Your task to perform on an android device: allow cookies in the chrome app Image 0: 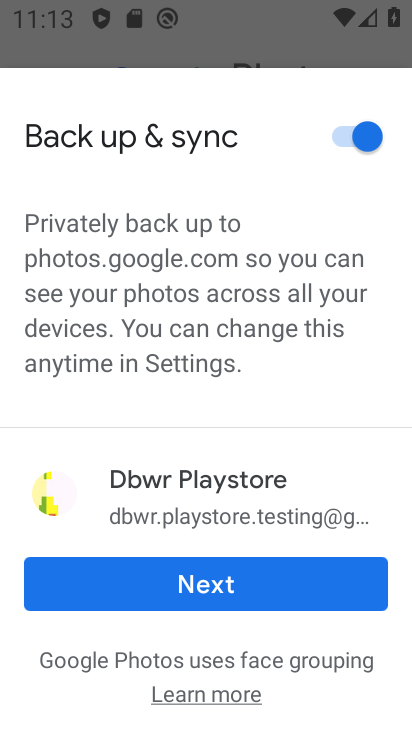
Step 0: press home button
Your task to perform on an android device: allow cookies in the chrome app Image 1: 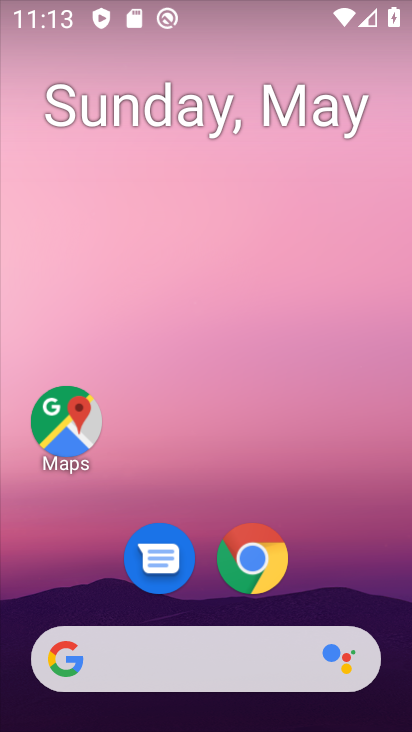
Step 1: drag from (387, 586) to (377, 154)
Your task to perform on an android device: allow cookies in the chrome app Image 2: 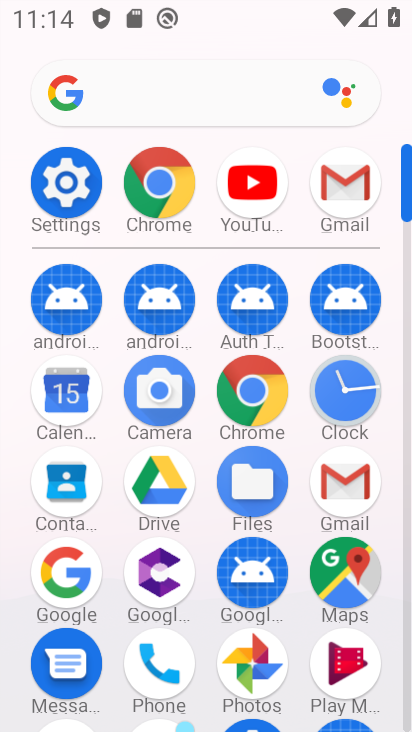
Step 2: click (258, 396)
Your task to perform on an android device: allow cookies in the chrome app Image 3: 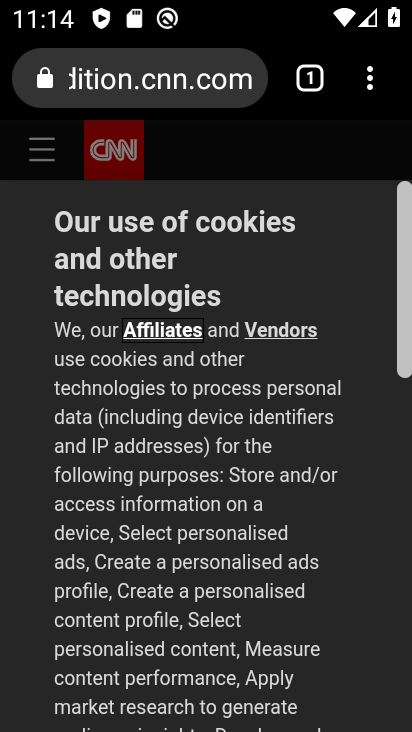
Step 3: click (372, 82)
Your task to perform on an android device: allow cookies in the chrome app Image 4: 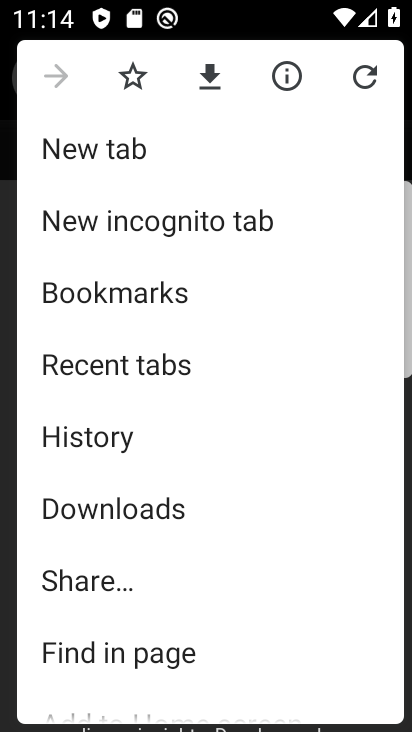
Step 4: drag from (309, 612) to (299, 420)
Your task to perform on an android device: allow cookies in the chrome app Image 5: 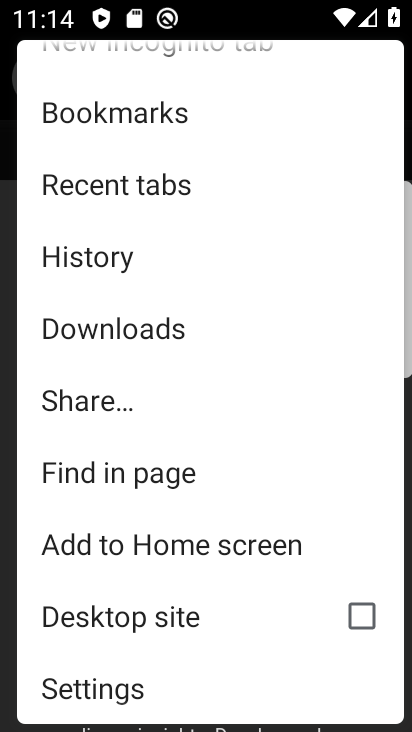
Step 5: drag from (256, 602) to (258, 501)
Your task to perform on an android device: allow cookies in the chrome app Image 6: 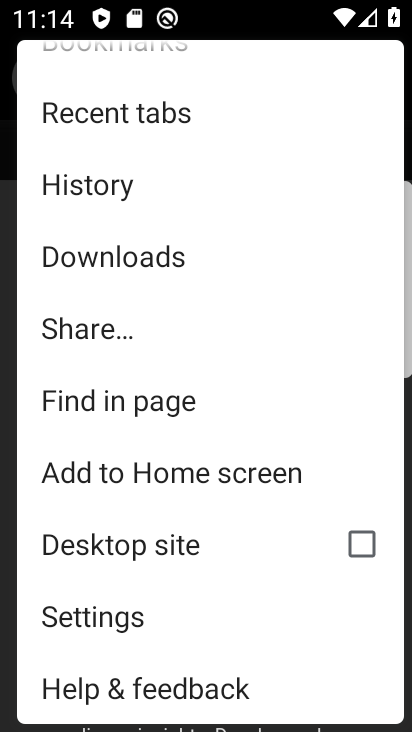
Step 6: click (125, 627)
Your task to perform on an android device: allow cookies in the chrome app Image 7: 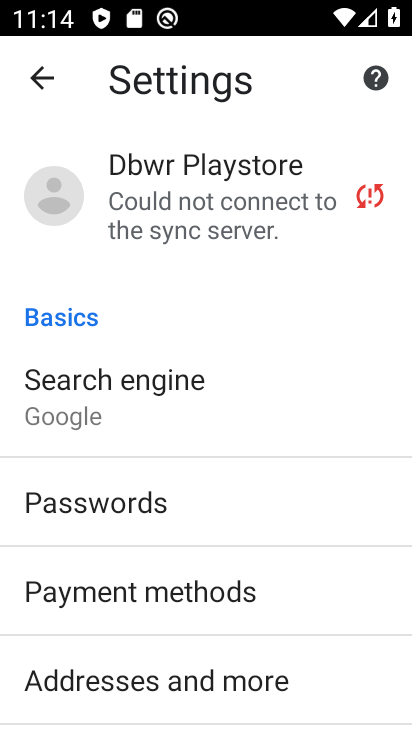
Step 7: drag from (329, 659) to (345, 497)
Your task to perform on an android device: allow cookies in the chrome app Image 8: 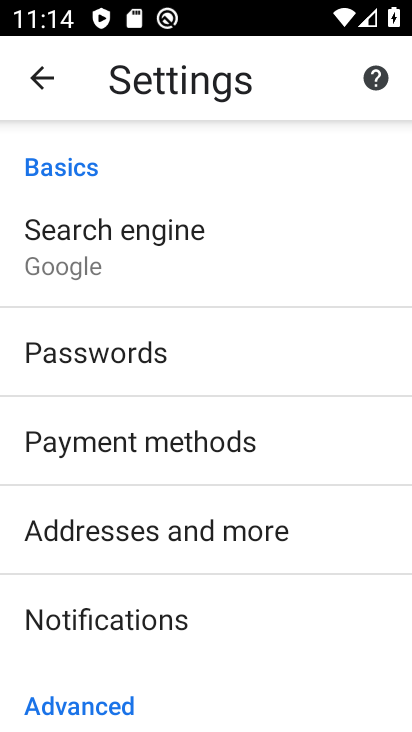
Step 8: drag from (336, 682) to (351, 530)
Your task to perform on an android device: allow cookies in the chrome app Image 9: 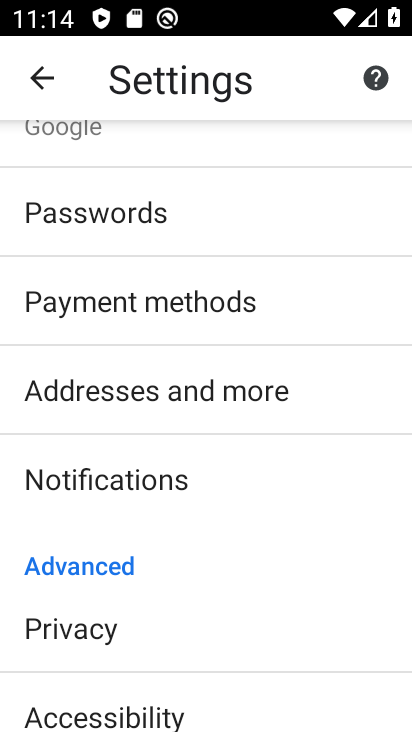
Step 9: drag from (315, 682) to (312, 525)
Your task to perform on an android device: allow cookies in the chrome app Image 10: 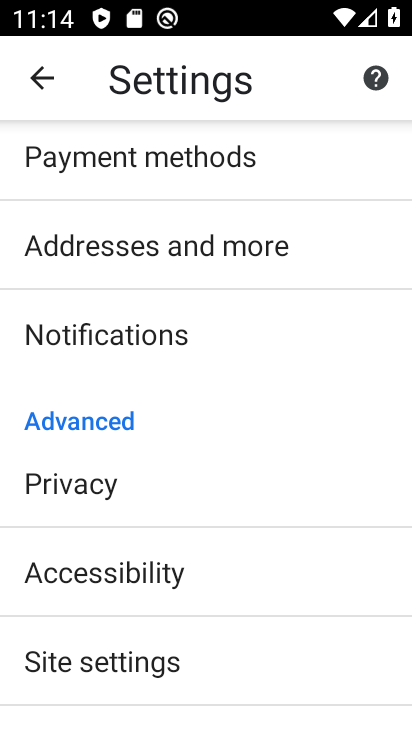
Step 10: drag from (305, 680) to (304, 525)
Your task to perform on an android device: allow cookies in the chrome app Image 11: 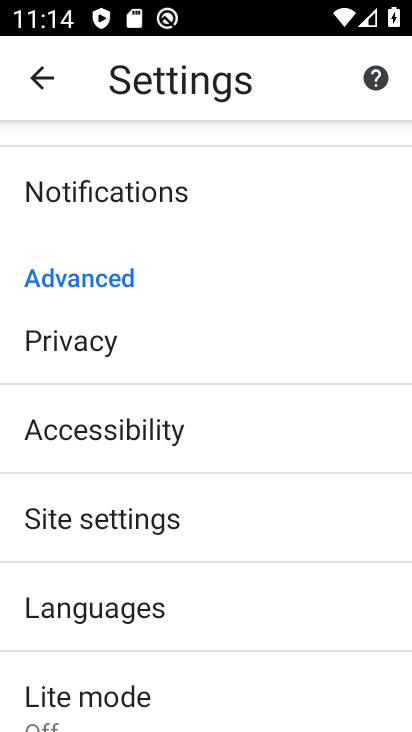
Step 11: drag from (306, 716) to (306, 553)
Your task to perform on an android device: allow cookies in the chrome app Image 12: 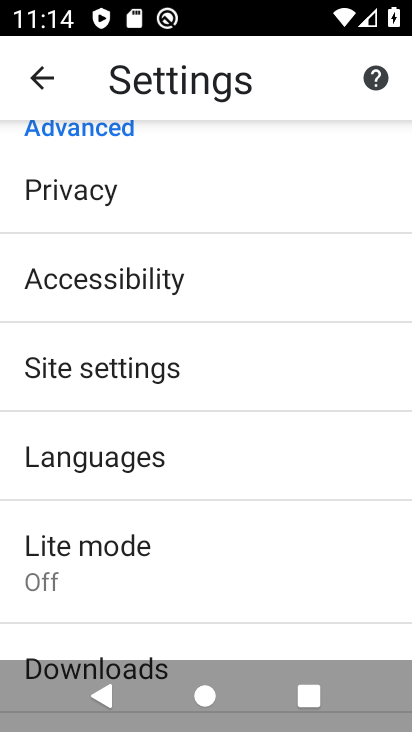
Step 12: drag from (322, 718) to (326, 583)
Your task to perform on an android device: allow cookies in the chrome app Image 13: 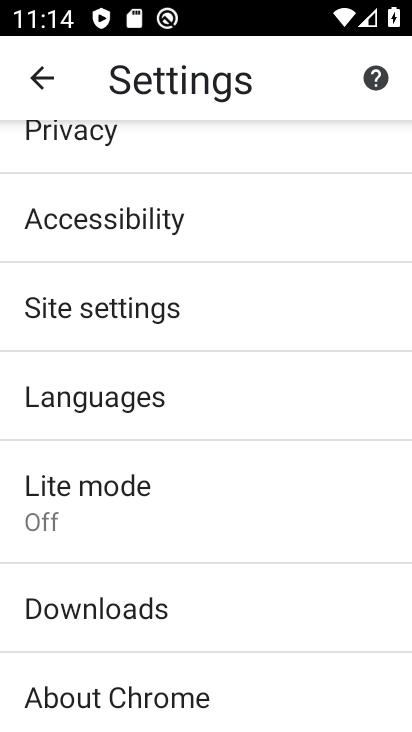
Step 13: drag from (330, 658) to (330, 537)
Your task to perform on an android device: allow cookies in the chrome app Image 14: 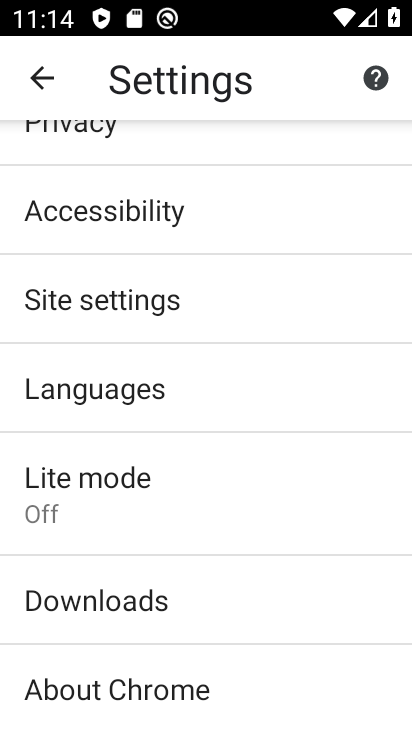
Step 14: click (221, 306)
Your task to perform on an android device: allow cookies in the chrome app Image 15: 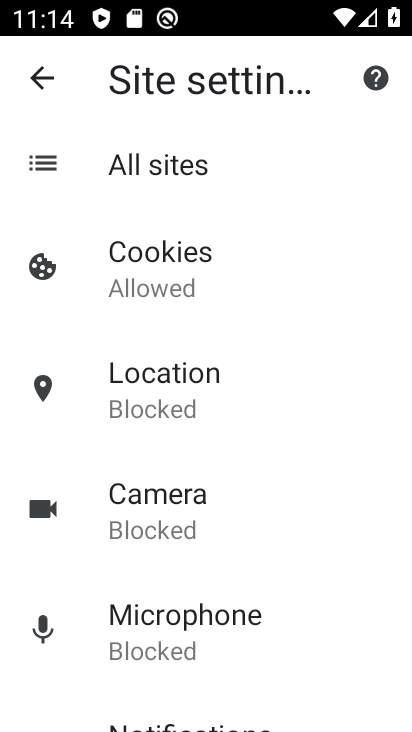
Step 15: drag from (313, 602) to (328, 435)
Your task to perform on an android device: allow cookies in the chrome app Image 16: 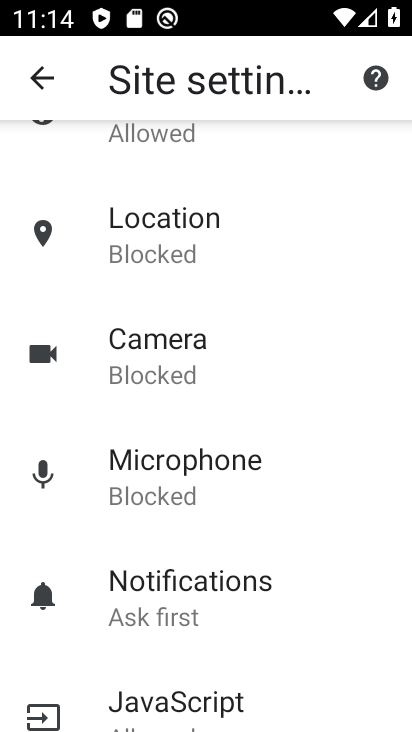
Step 16: drag from (345, 636) to (350, 464)
Your task to perform on an android device: allow cookies in the chrome app Image 17: 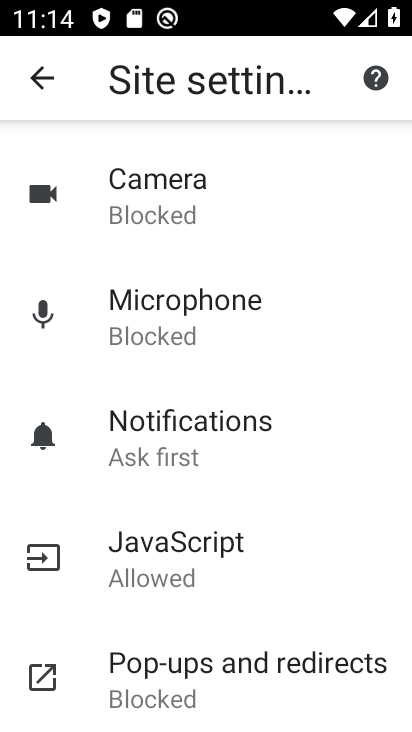
Step 17: drag from (341, 575) to (338, 400)
Your task to perform on an android device: allow cookies in the chrome app Image 18: 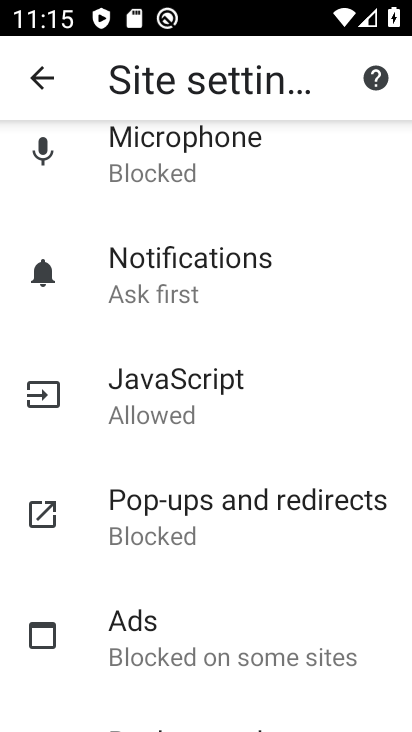
Step 18: drag from (335, 276) to (339, 547)
Your task to perform on an android device: allow cookies in the chrome app Image 19: 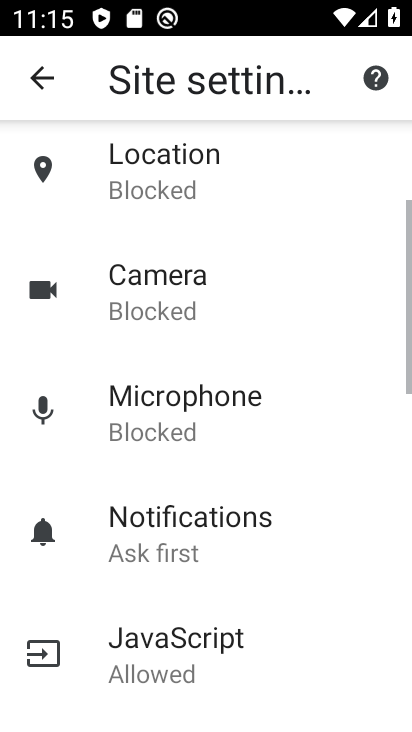
Step 19: drag from (331, 297) to (339, 545)
Your task to perform on an android device: allow cookies in the chrome app Image 20: 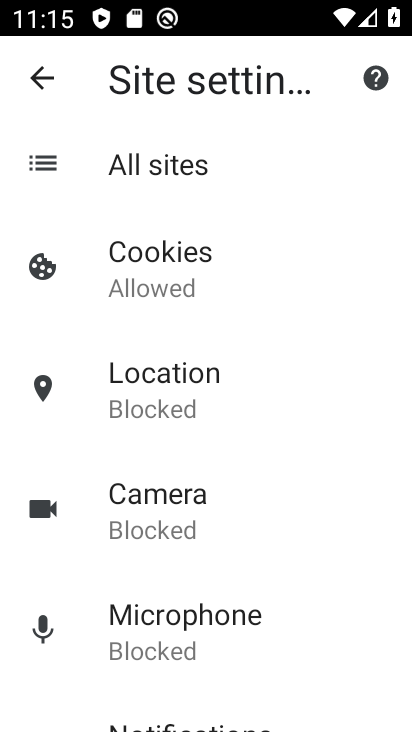
Step 20: click (183, 265)
Your task to perform on an android device: allow cookies in the chrome app Image 21: 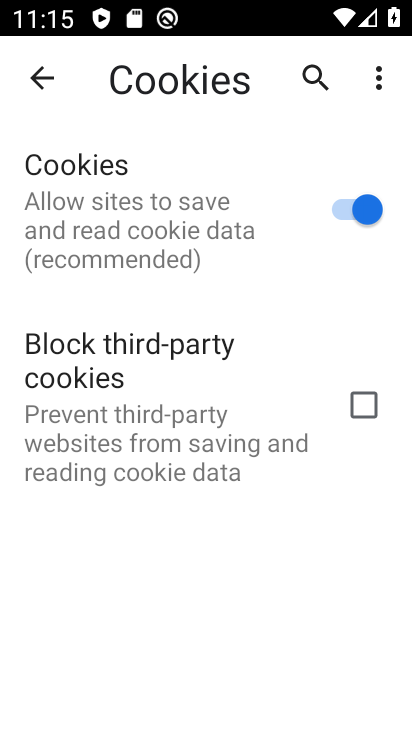
Step 21: task complete